Your task to perform on an android device: clear history in the chrome app Image 0: 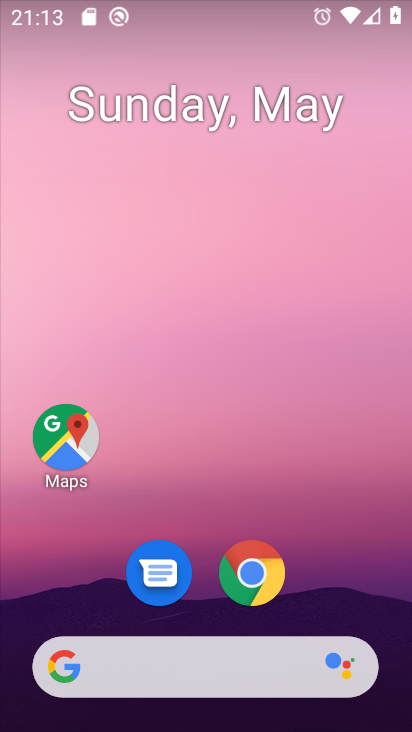
Step 0: click (251, 571)
Your task to perform on an android device: clear history in the chrome app Image 1: 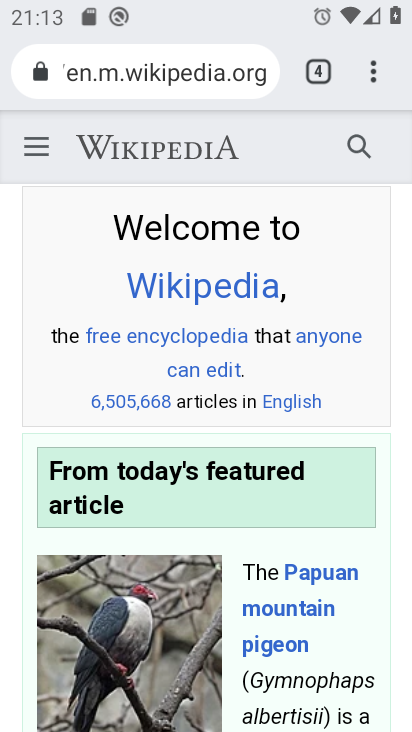
Step 1: click (375, 62)
Your task to perform on an android device: clear history in the chrome app Image 2: 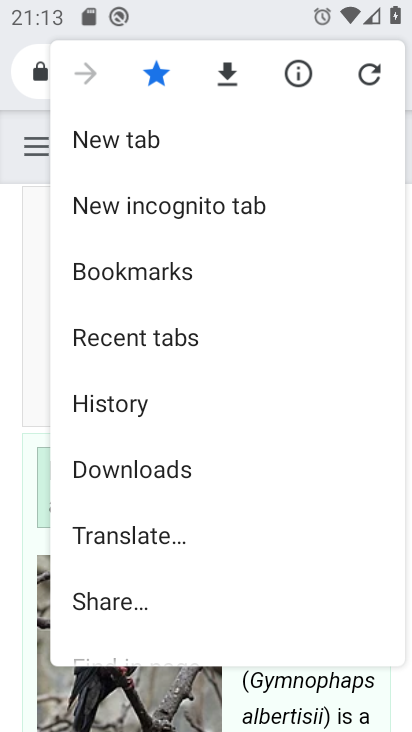
Step 2: click (167, 393)
Your task to perform on an android device: clear history in the chrome app Image 3: 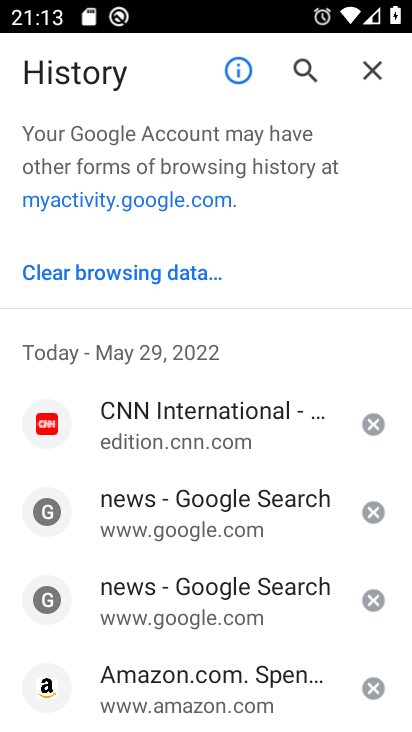
Step 3: click (141, 270)
Your task to perform on an android device: clear history in the chrome app Image 4: 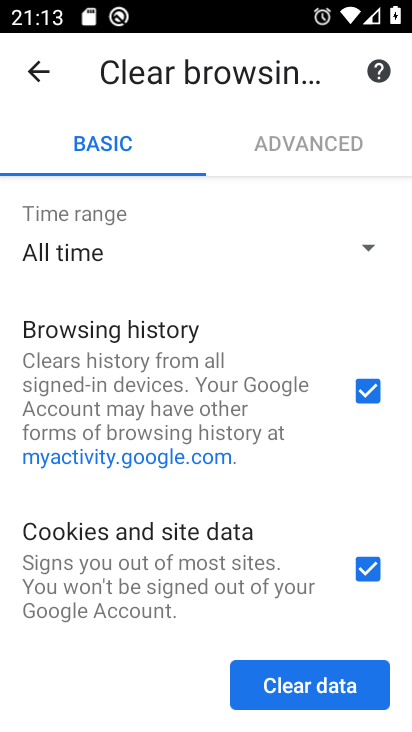
Step 4: click (365, 565)
Your task to perform on an android device: clear history in the chrome app Image 5: 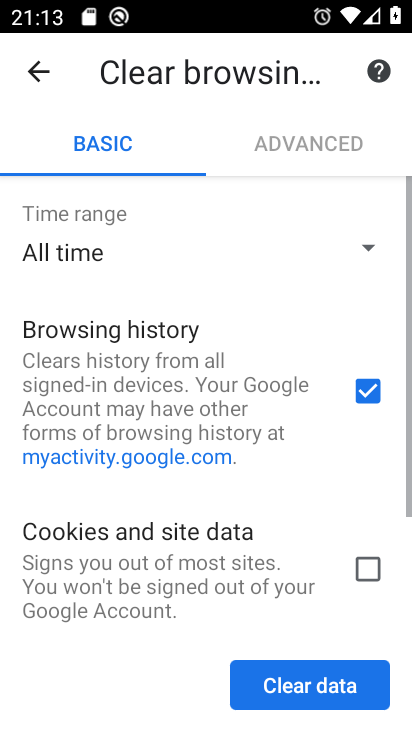
Step 5: drag from (284, 572) to (297, 270)
Your task to perform on an android device: clear history in the chrome app Image 6: 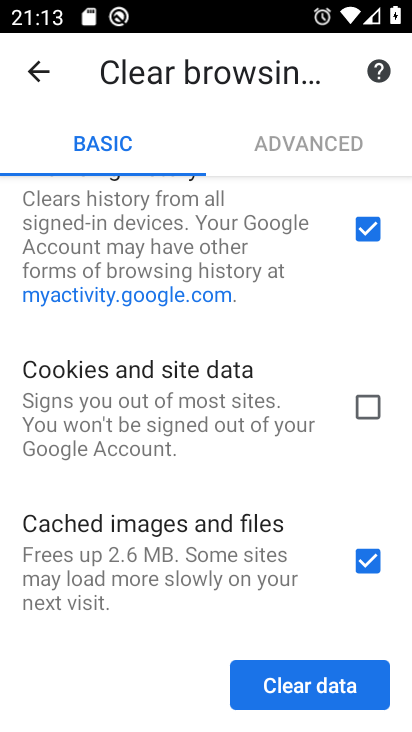
Step 6: click (373, 562)
Your task to perform on an android device: clear history in the chrome app Image 7: 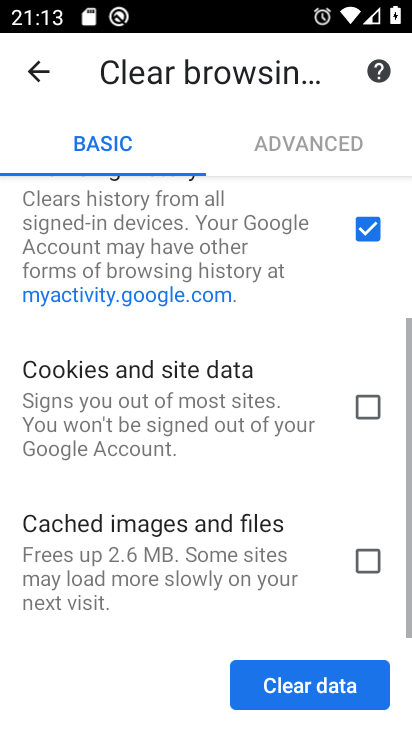
Step 7: click (346, 689)
Your task to perform on an android device: clear history in the chrome app Image 8: 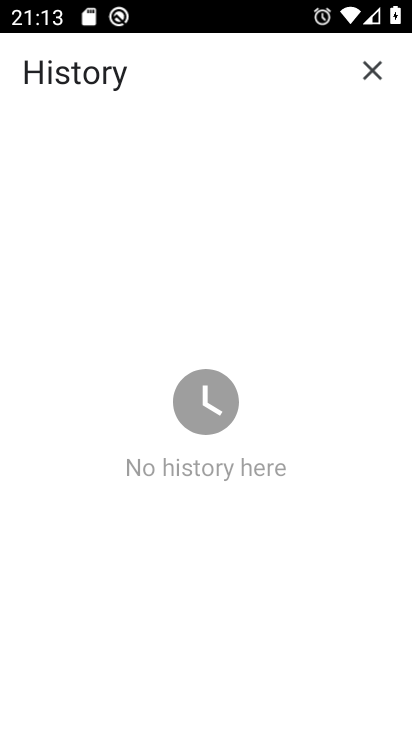
Step 8: task complete